Your task to perform on an android device: uninstall "Google Duo" Image 0: 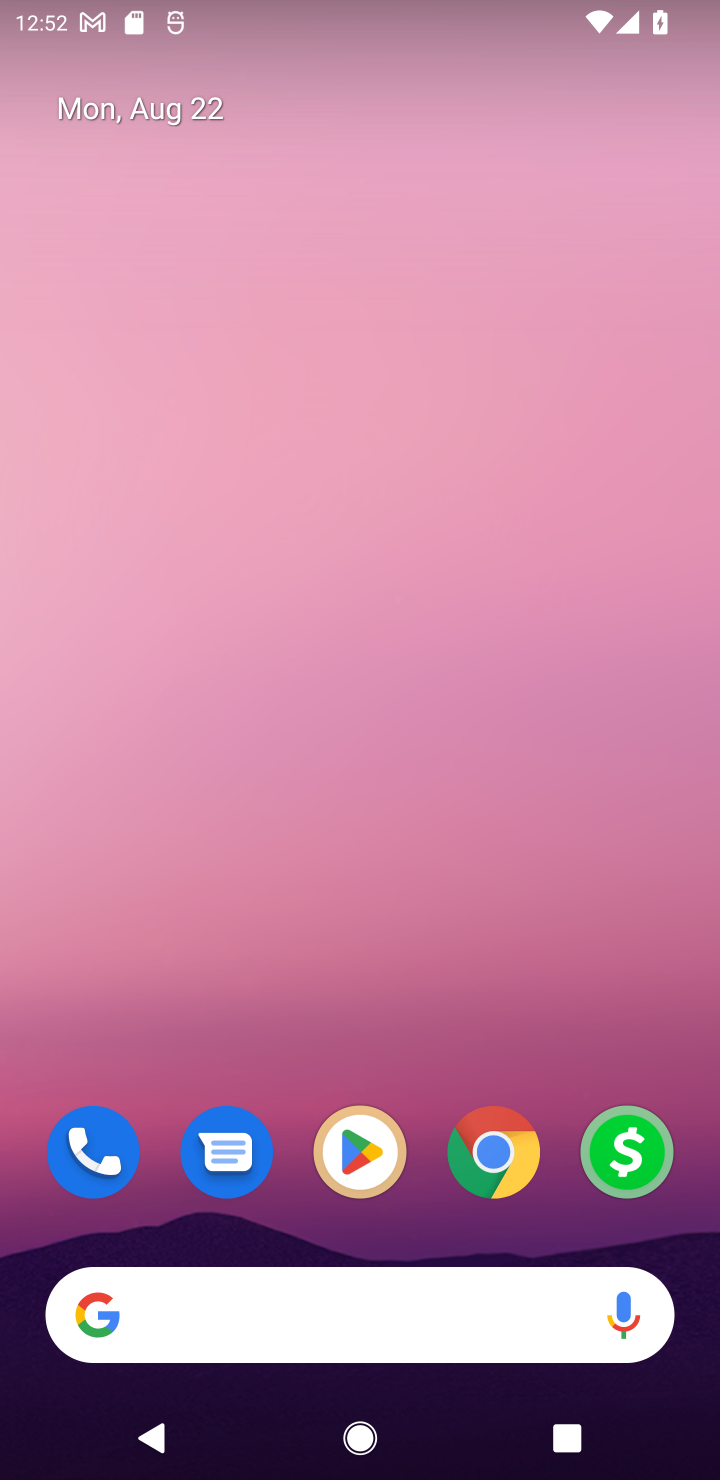
Step 0: click (346, 1159)
Your task to perform on an android device: uninstall "Google Duo" Image 1: 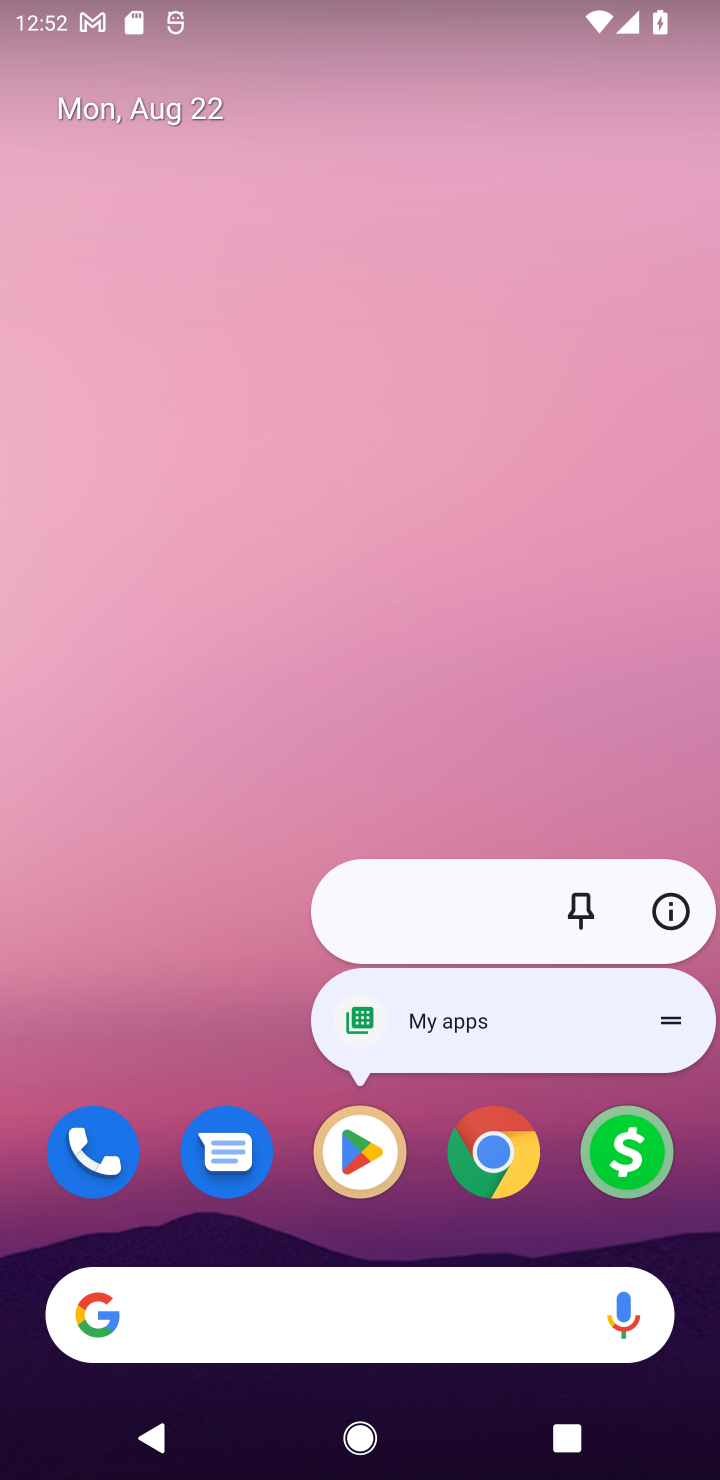
Step 1: click (346, 1159)
Your task to perform on an android device: uninstall "Google Duo" Image 2: 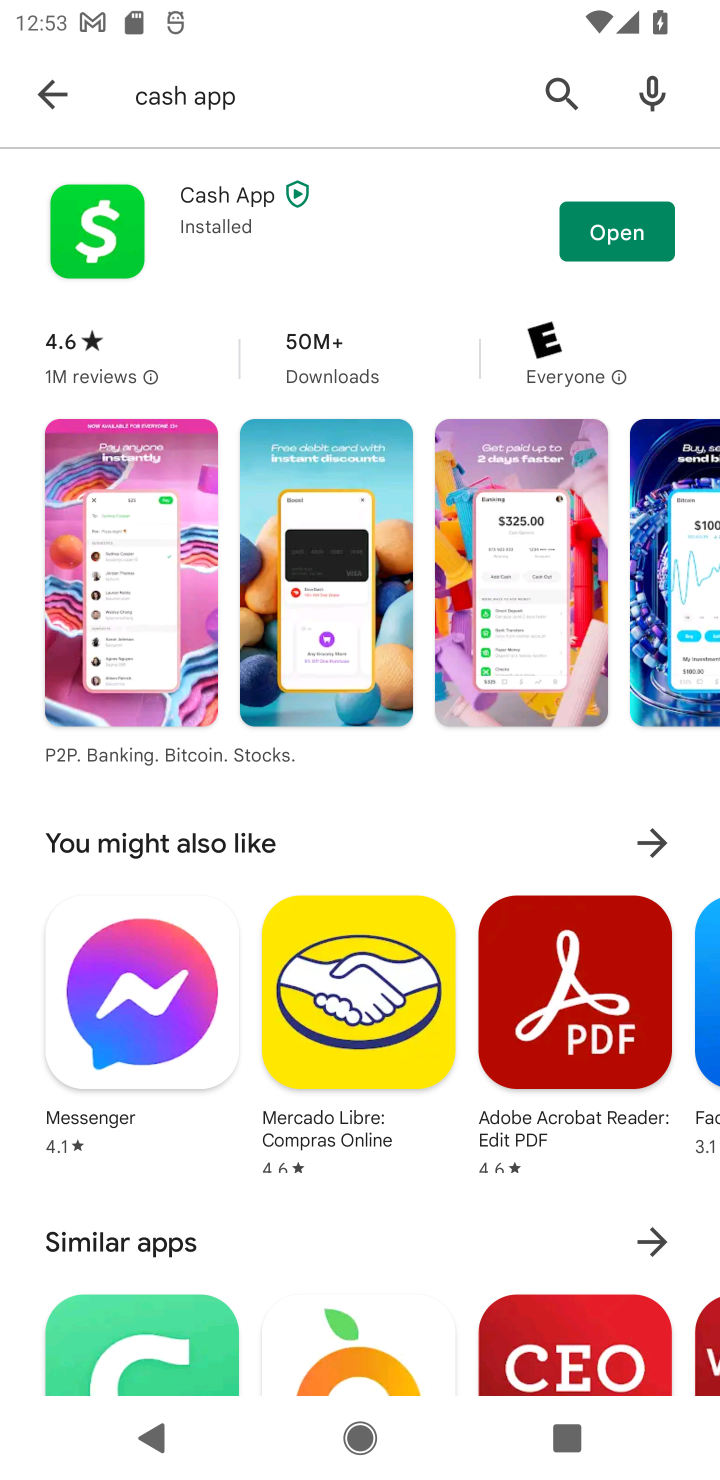
Step 2: click (43, 89)
Your task to perform on an android device: uninstall "Google Duo" Image 3: 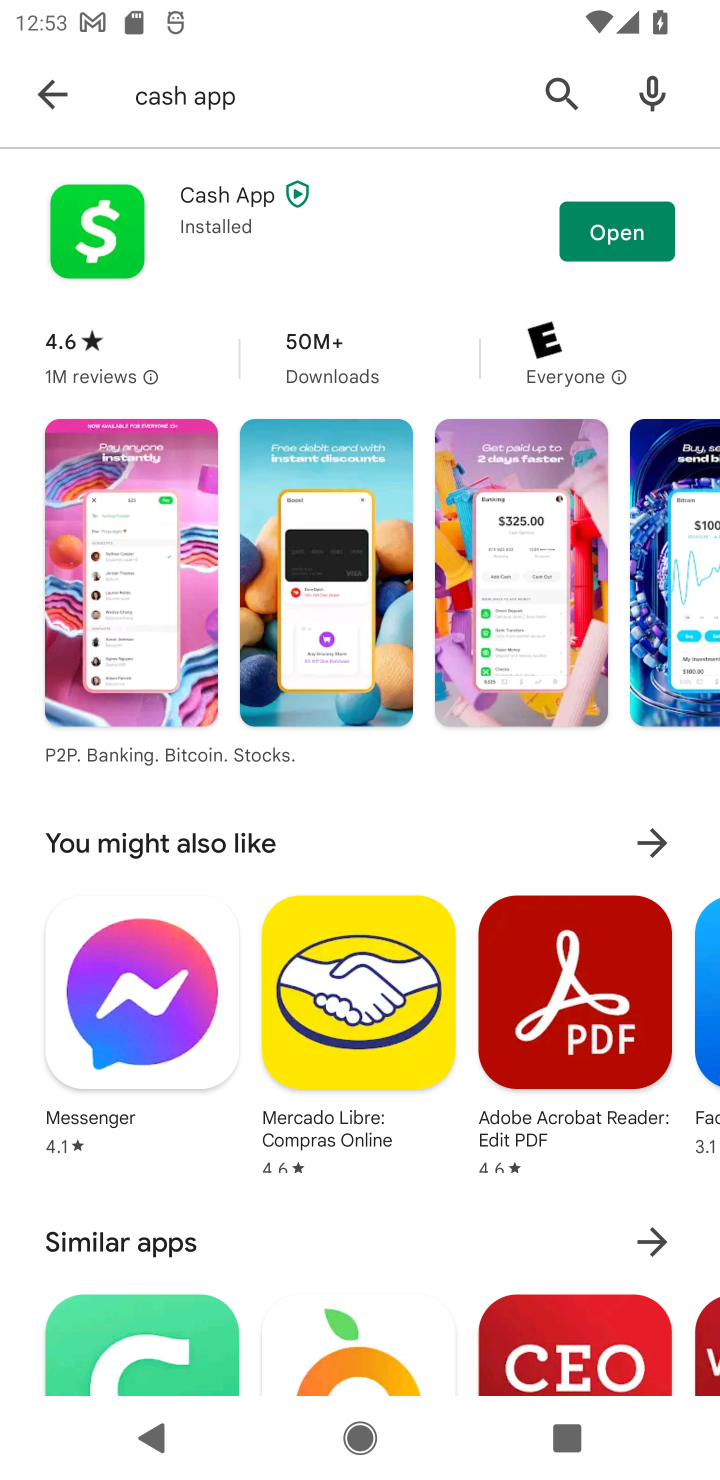
Step 3: click (63, 89)
Your task to perform on an android device: uninstall "Google Duo" Image 4: 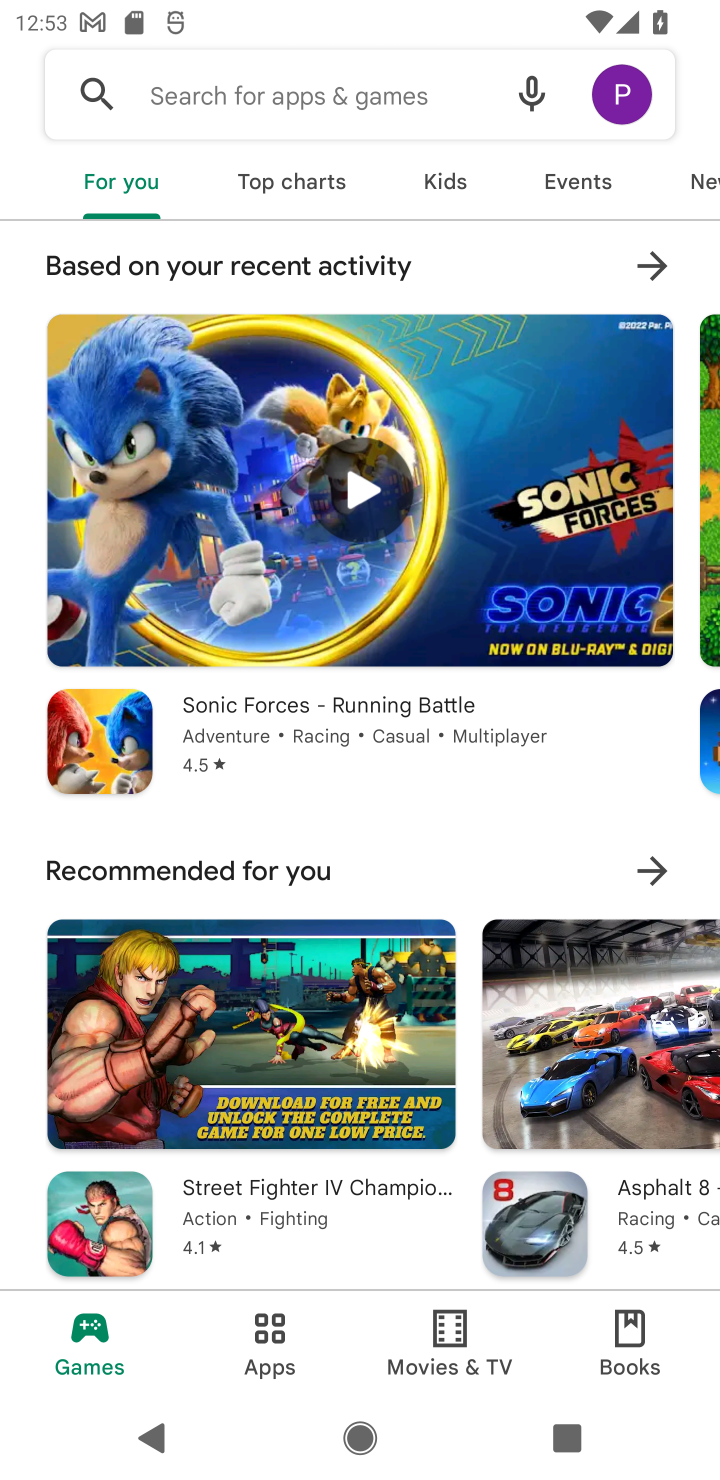
Step 4: click (241, 92)
Your task to perform on an android device: uninstall "Google Duo" Image 5: 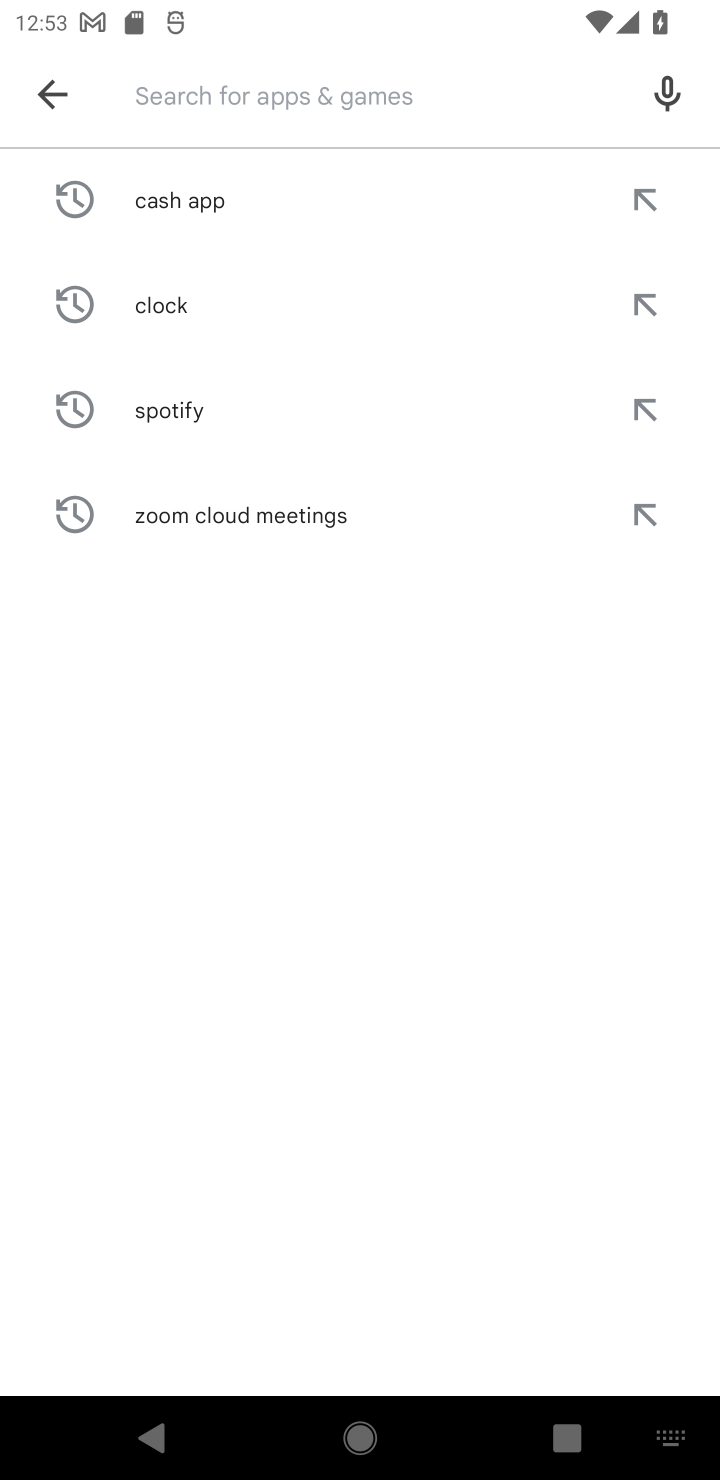
Step 5: type "Google Duo"
Your task to perform on an android device: uninstall "Google Duo" Image 6: 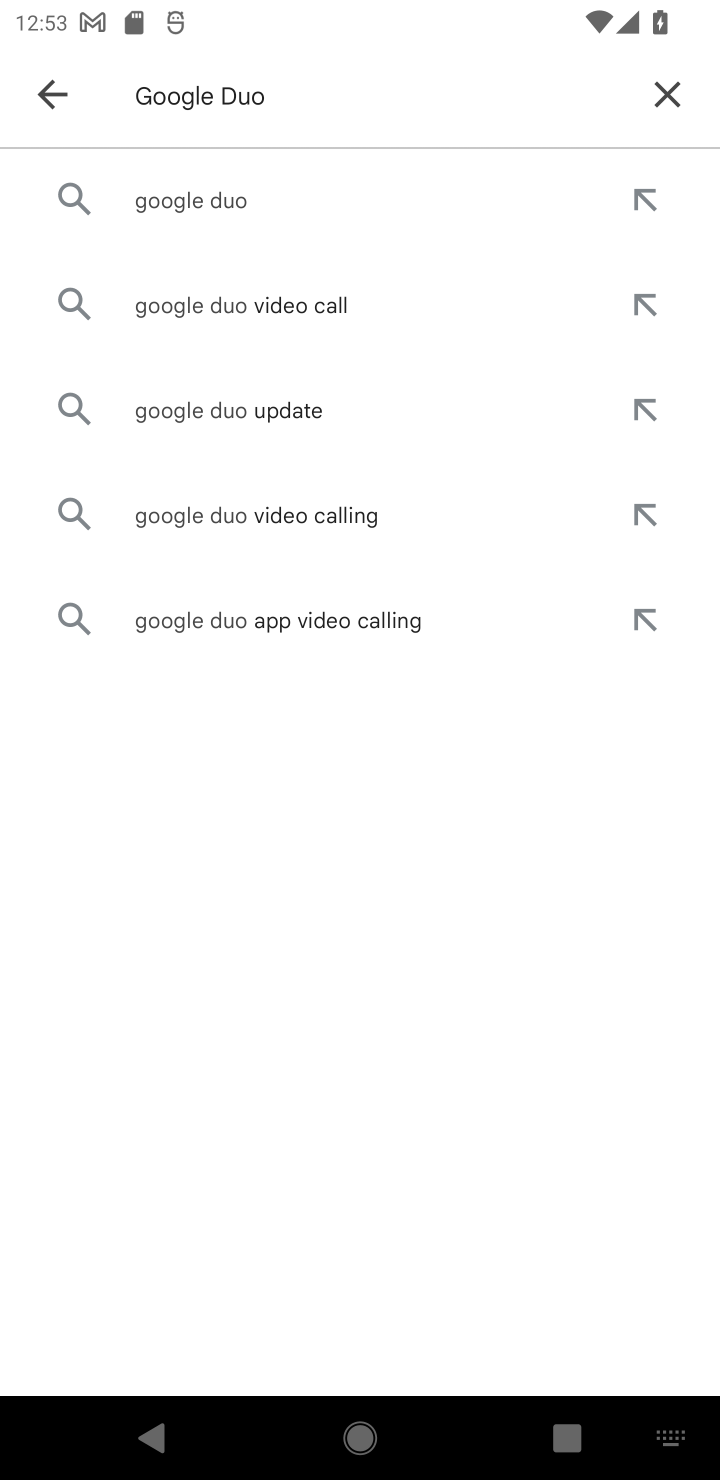
Step 6: click (160, 198)
Your task to perform on an android device: uninstall "Google Duo" Image 7: 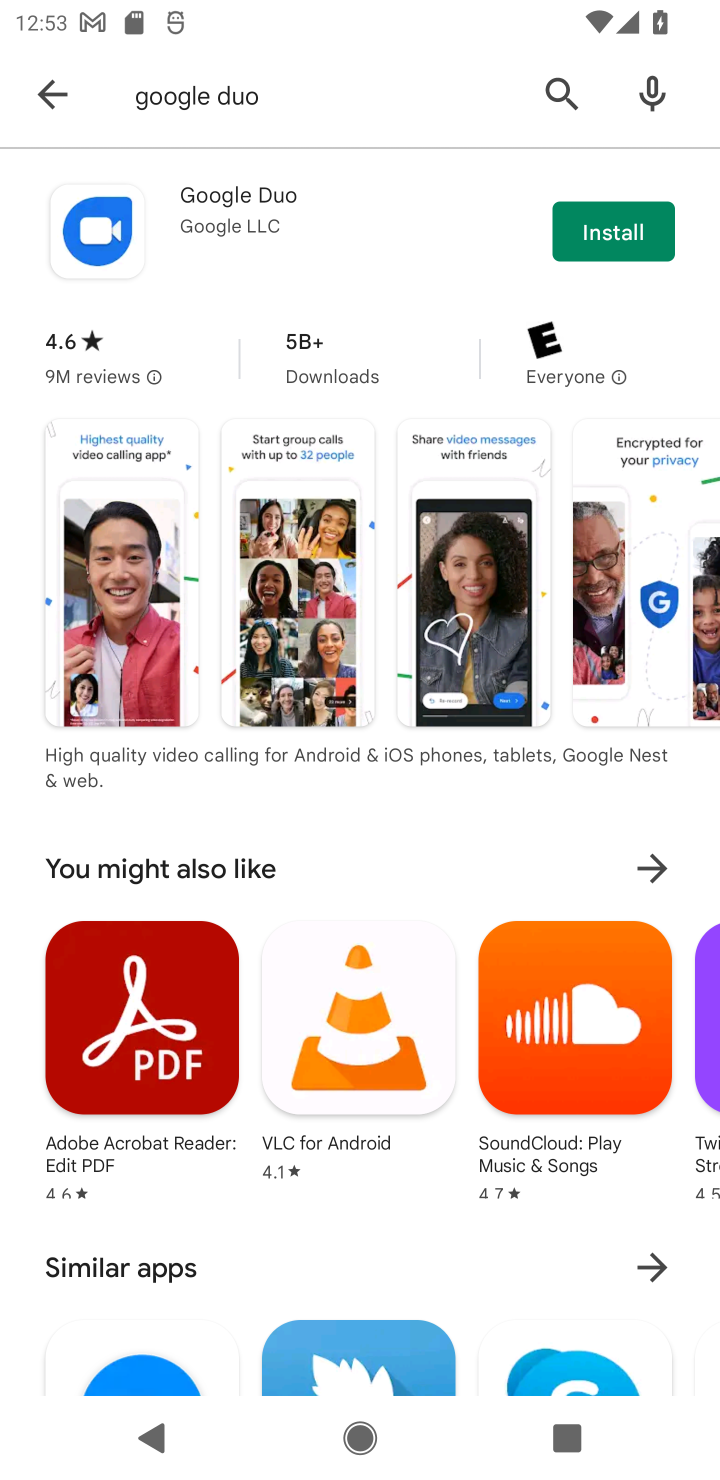
Step 7: click (593, 232)
Your task to perform on an android device: uninstall "Google Duo" Image 8: 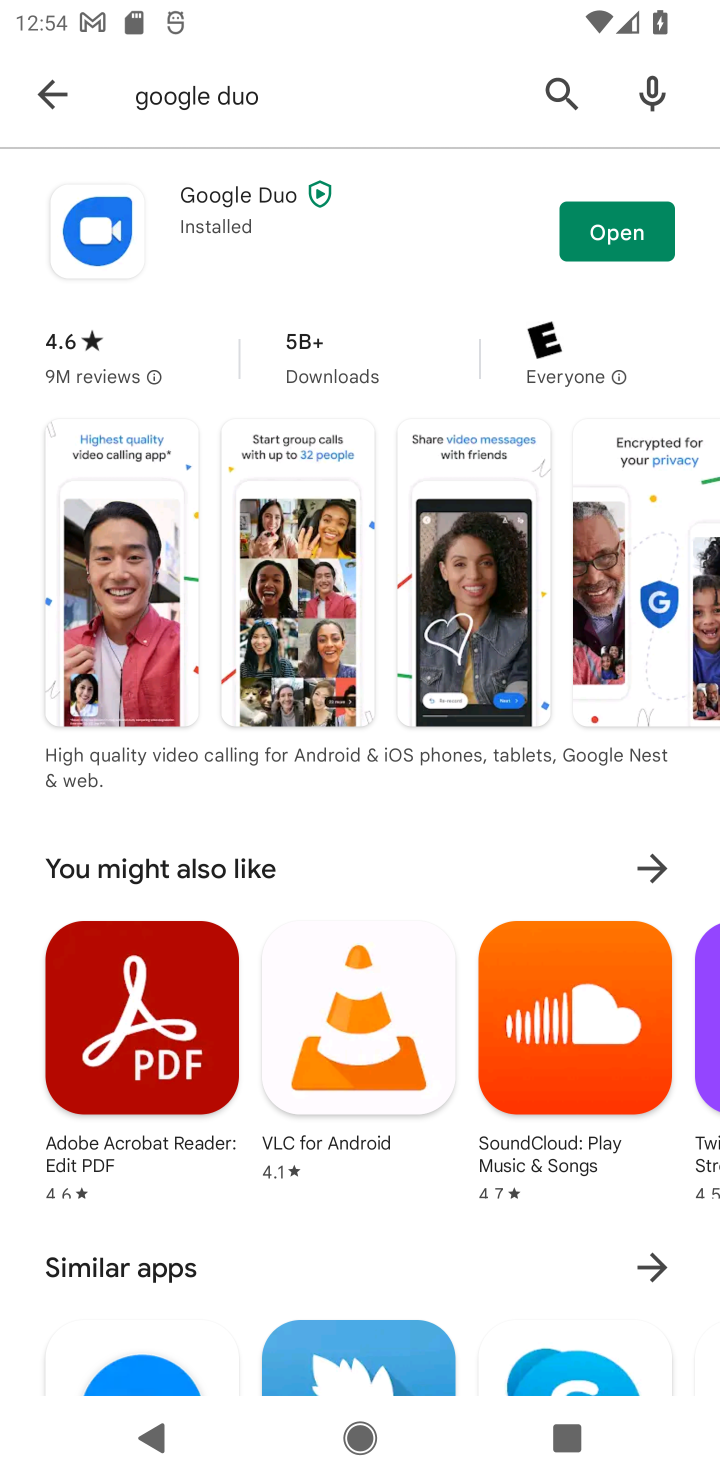
Step 8: click (588, 231)
Your task to perform on an android device: uninstall "Google Duo" Image 9: 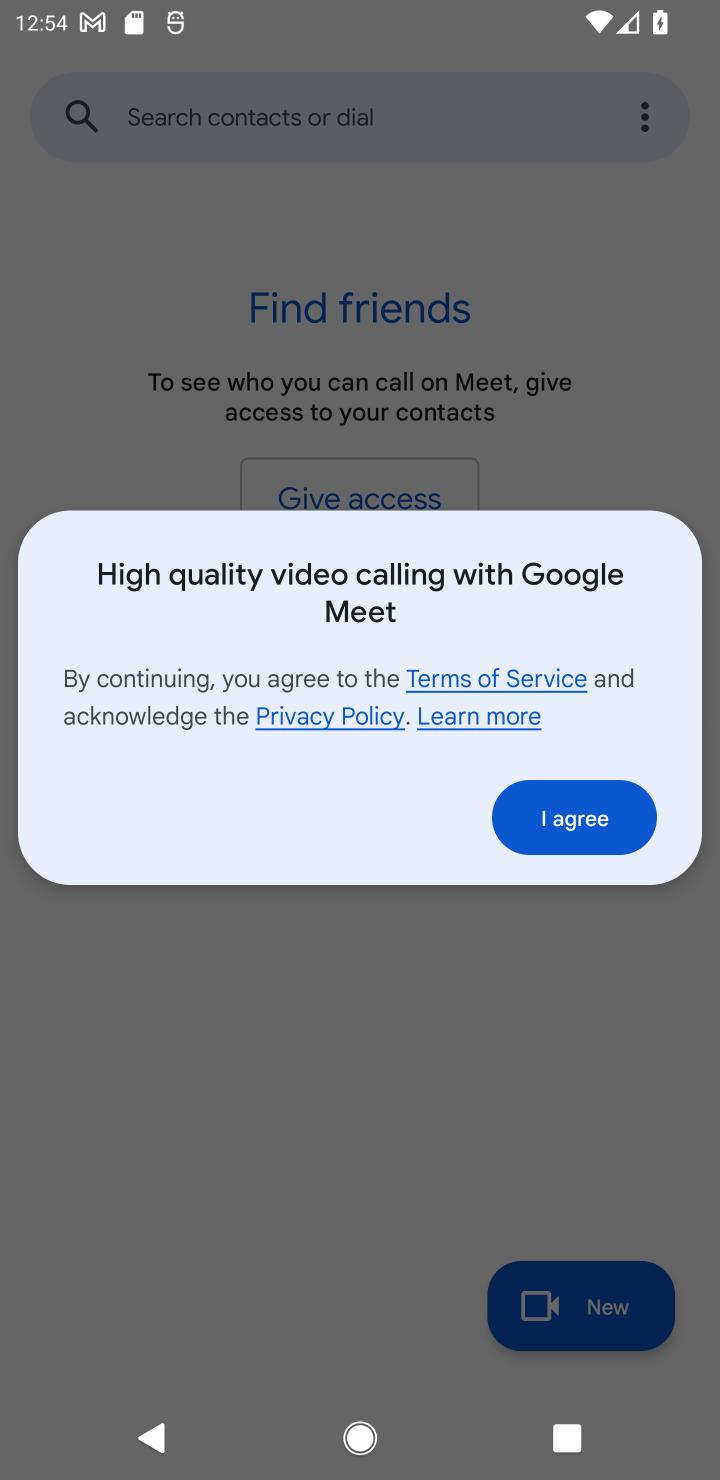
Step 9: task complete